Your task to perform on an android device: open app "Spotify: Music and Podcasts" Image 0: 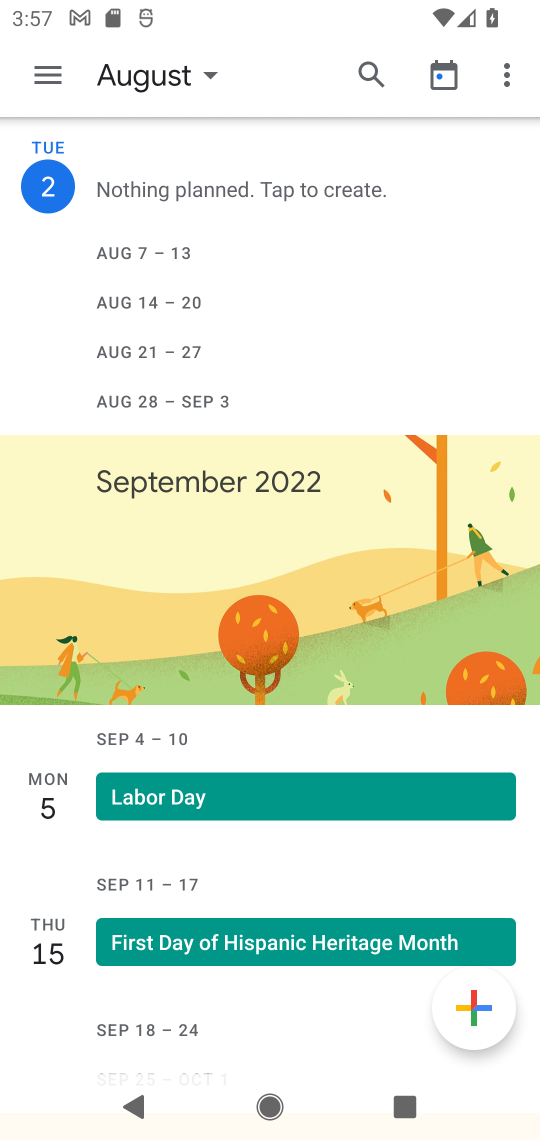
Step 0: press home button
Your task to perform on an android device: open app "Spotify: Music and Podcasts" Image 1: 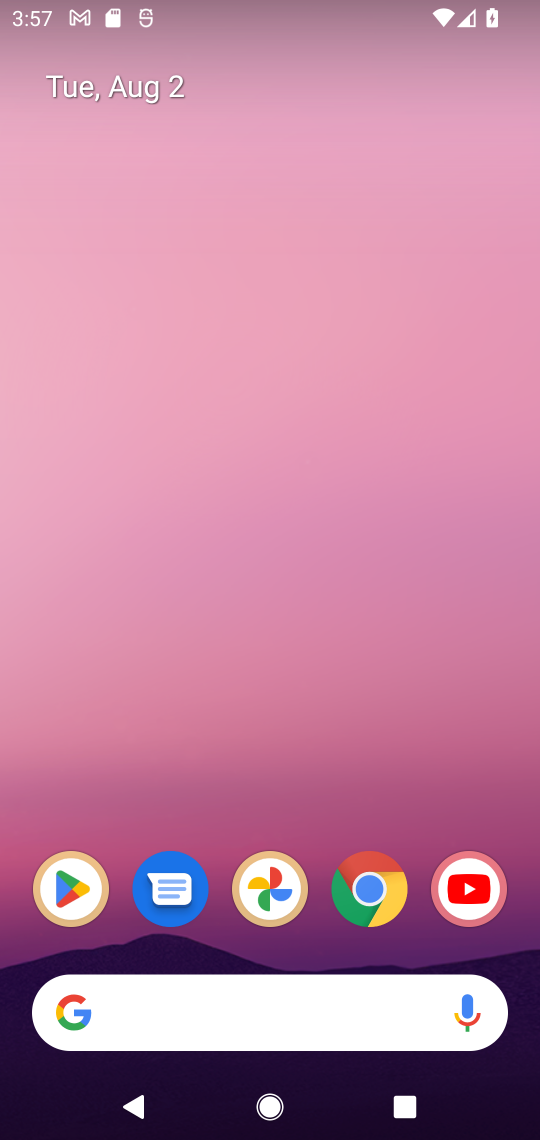
Step 1: drag from (424, 676) to (397, 109)
Your task to perform on an android device: open app "Spotify: Music and Podcasts" Image 2: 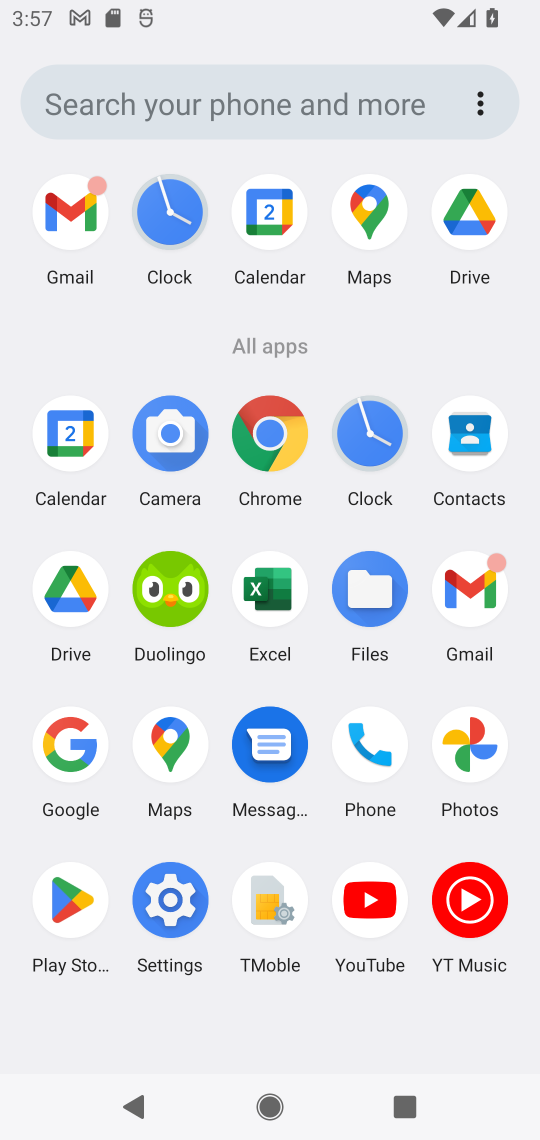
Step 2: click (87, 905)
Your task to perform on an android device: open app "Spotify: Music and Podcasts" Image 3: 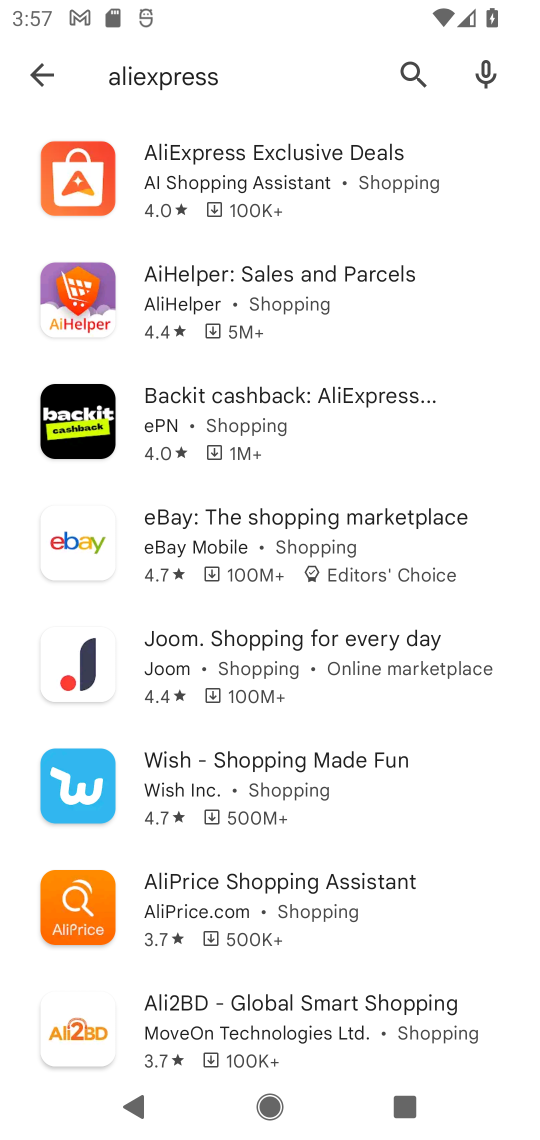
Step 3: click (400, 80)
Your task to perform on an android device: open app "Spotify: Music and Podcasts" Image 4: 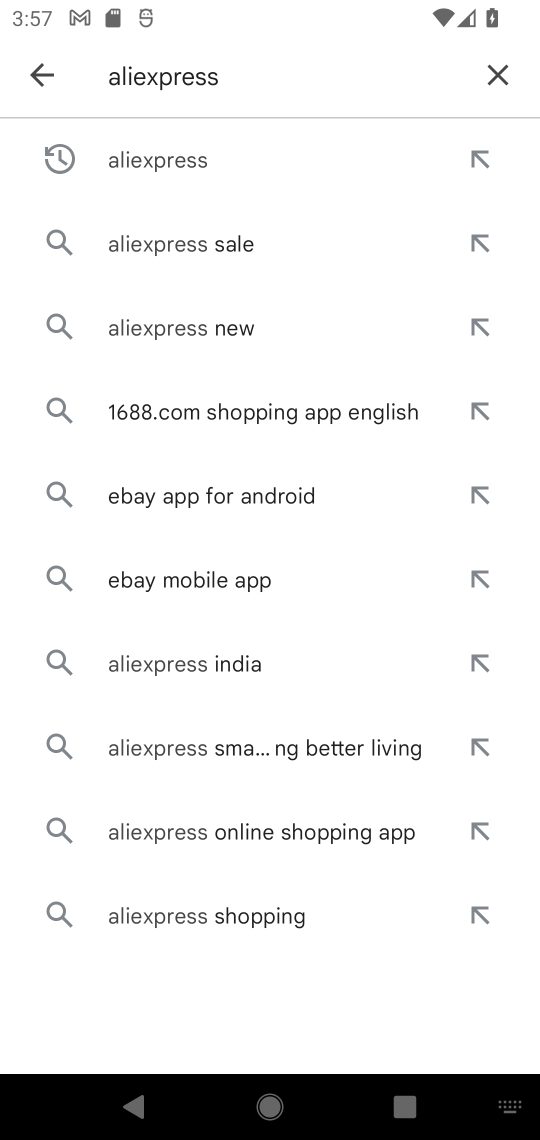
Step 4: click (497, 62)
Your task to perform on an android device: open app "Spotify: Music and Podcasts" Image 5: 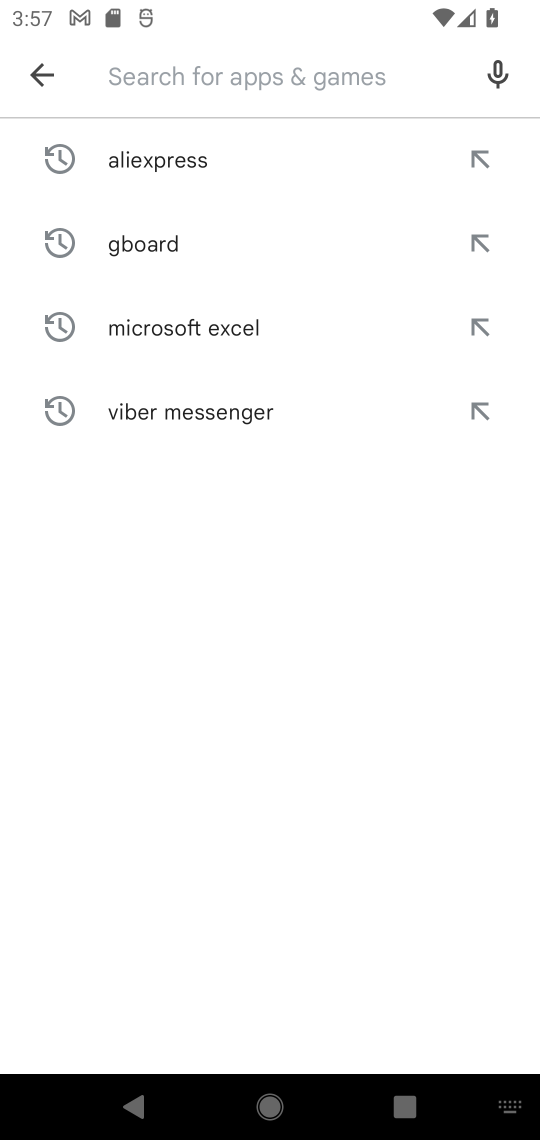
Step 5: click (253, 82)
Your task to perform on an android device: open app "Spotify: Music and Podcasts" Image 6: 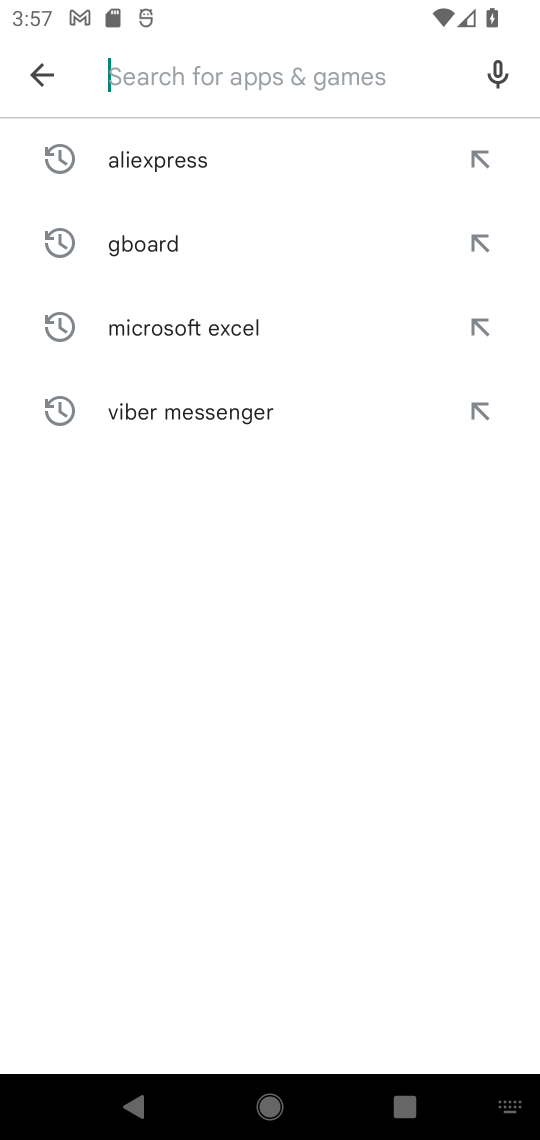
Step 6: type "spotift music prodcasts"
Your task to perform on an android device: open app "Spotify: Music and Podcasts" Image 7: 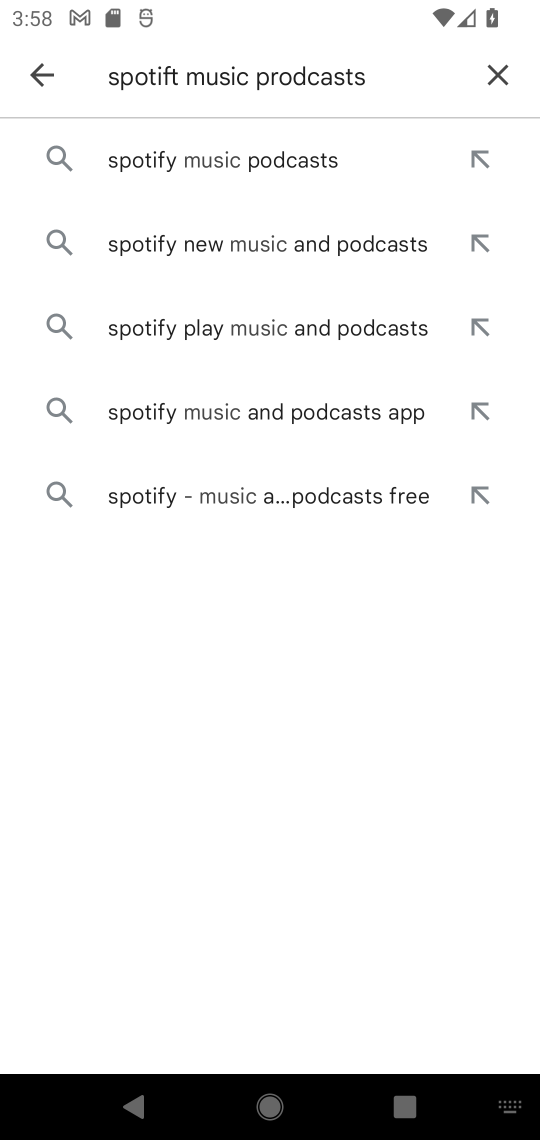
Step 7: click (327, 162)
Your task to perform on an android device: open app "Spotify: Music and Podcasts" Image 8: 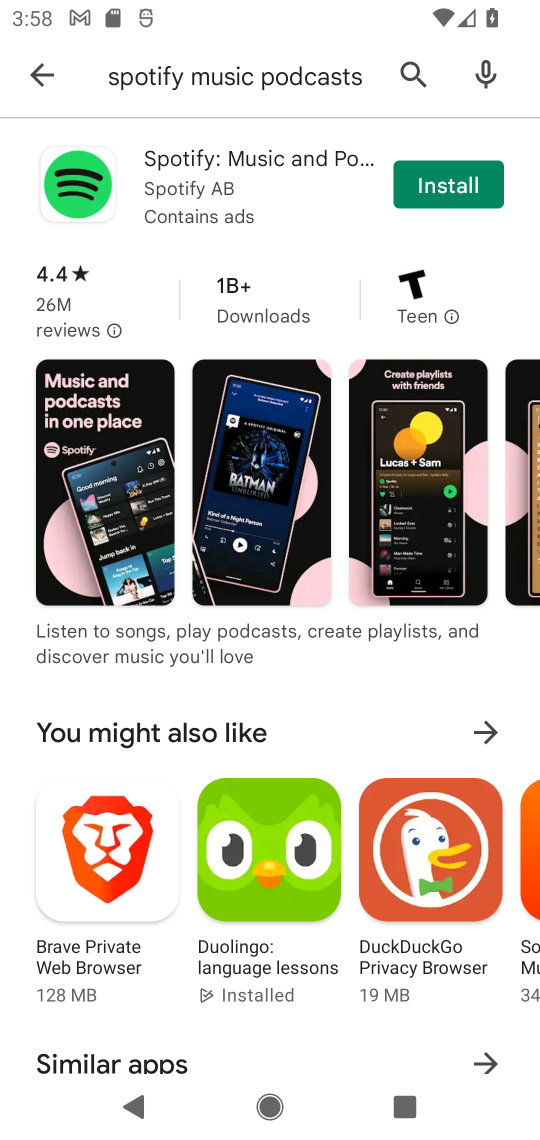
Step 8: task complete